Your task to perform on an android device: change text size in settings app Image 0: 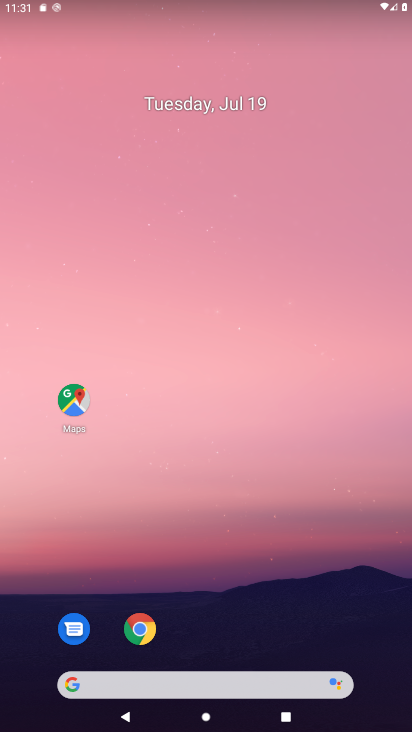
Step 0: drag from (354, 598) to (360, 131)
Your task to perform on an android device: change text size in settings app Image 1: 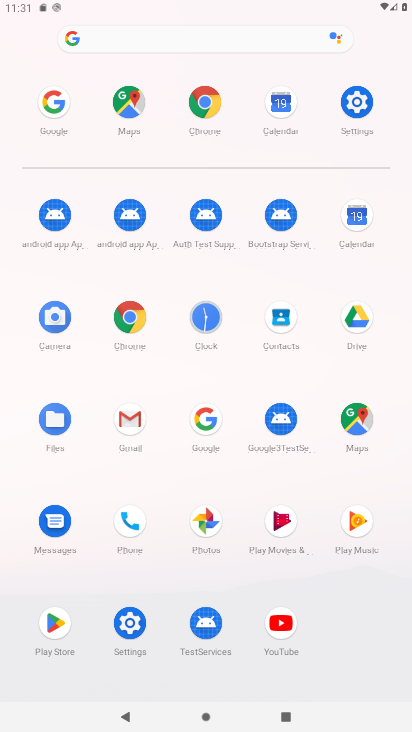
Step 1: click (366, 103)
Your task to perform on an android device: change text size in settings app Image 2: 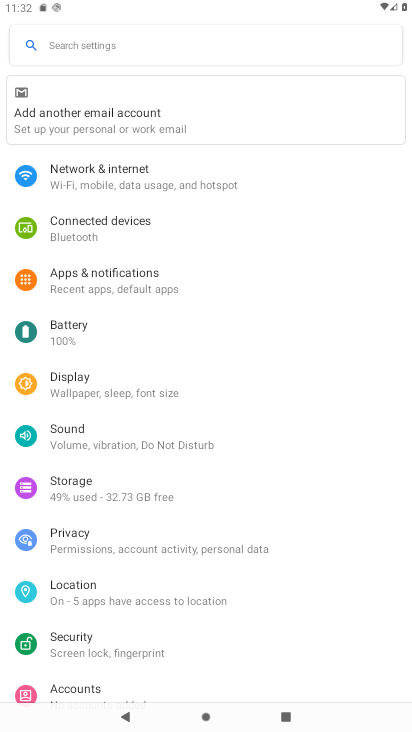
Step 2: drag from (336, 343) to (337, 279)
Your task to perform on an android device: change text size in settings app Image 3: 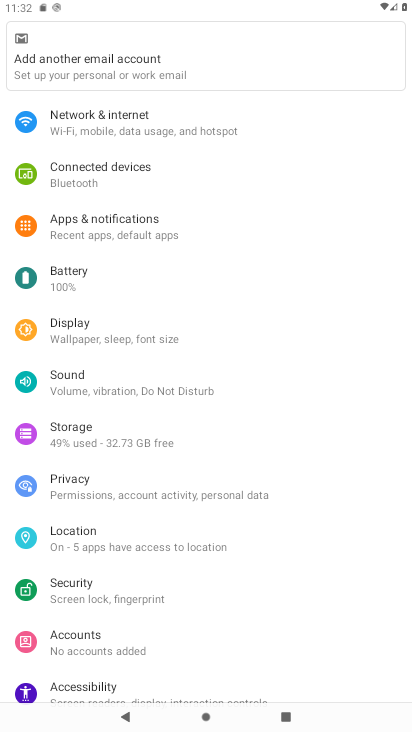
Step 3: drag from (342, 417) to (343, 255)
Your task to perform on an android device: change text size in settings app Image 4: 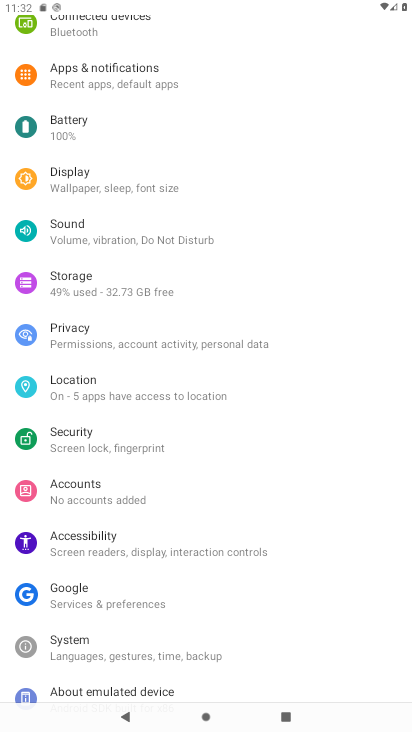
Step 4: drag from (313, 235) to (313, 323)
Your task to perform on an android device: change text size in settings app Image 5: 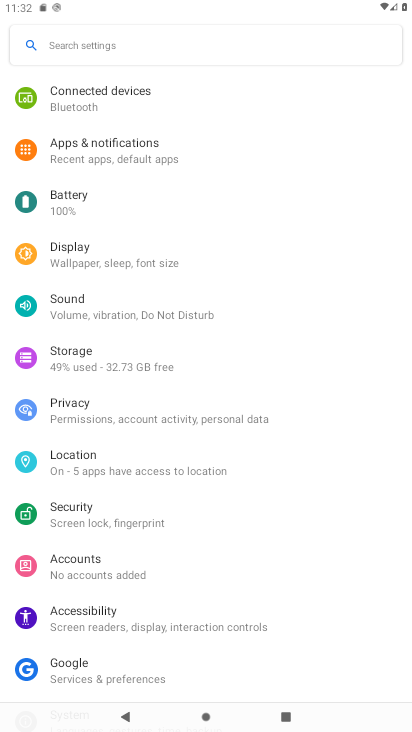
Step 5: drag from (315, 206) to (311, 369)
Your task to perform on an android device: change text size in settings app Image 6: 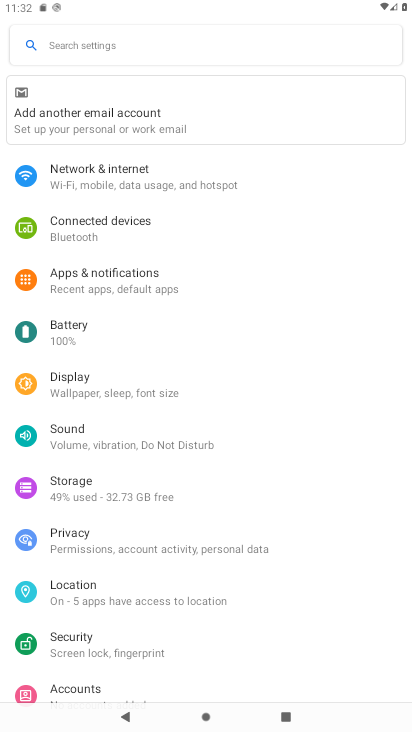
Step 6: click (223, 383)
Your task to perform on an android device: change text size in settings app Image 7: 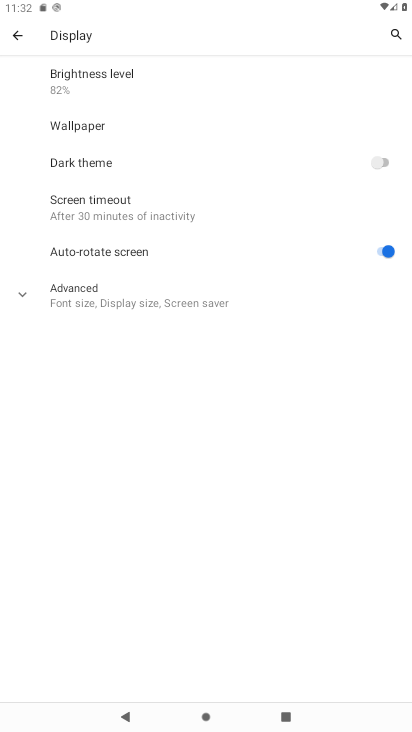
Step 7: click (126, 303)
Your task to perform on an android device: change text size in settings app Image 8: 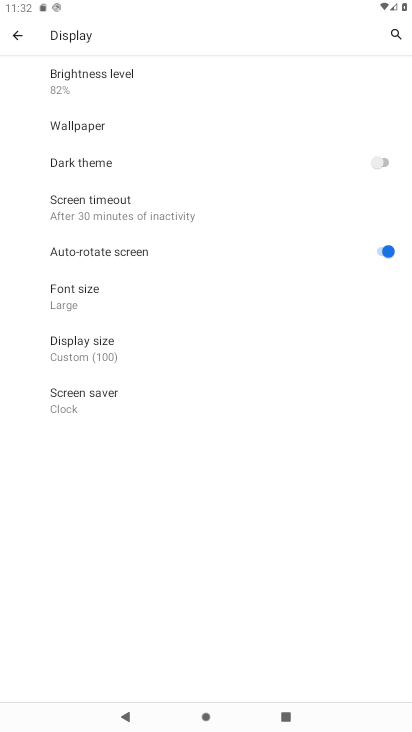
Step 8: click (115, 294)
Your task to perform on an android device: change text size in settings app Image 9: 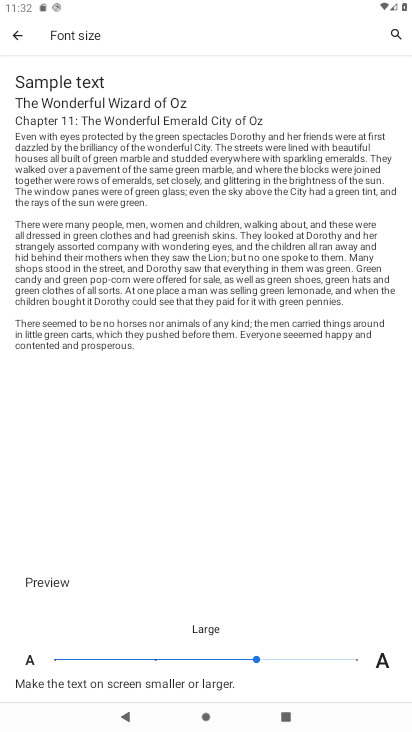
Step 9: click (360, 659)
Your task to perform on an android device: change text size in settings app Image 10: 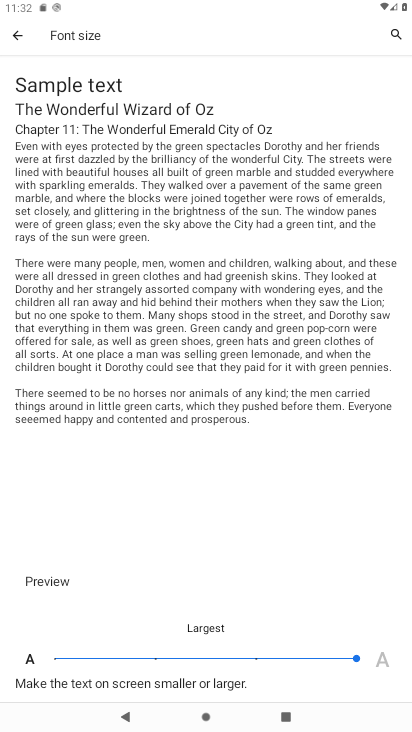
Step 10: task complete